Your task to perform on an android device: Turn off the flashlight Image 0: 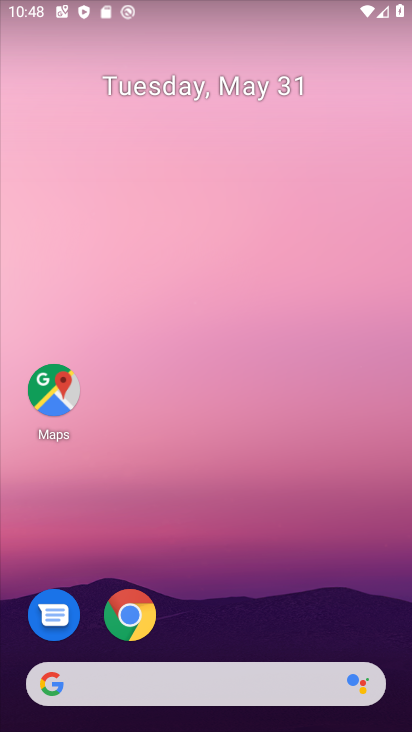
Step 0: task complete